Your task to perform on an android device: check android version Image 0: 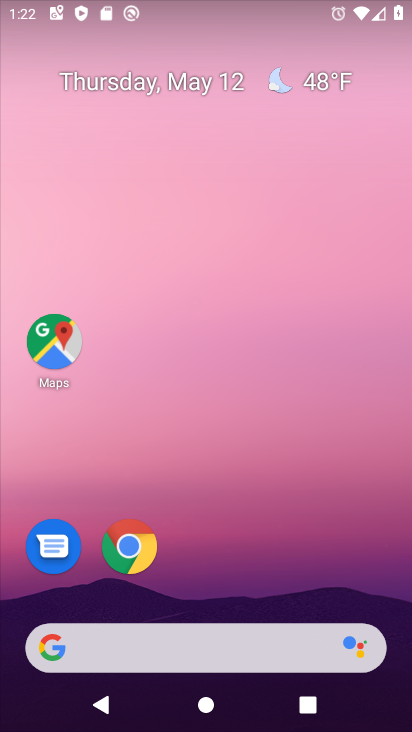
Step 0: drag from (225, 648) to (266, 245)
Your task to perform on an android device: check android version Image 1: 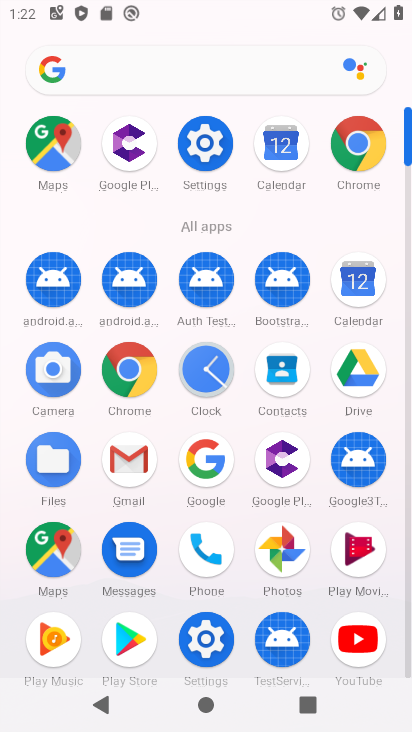
Step 1: click (206, 157)
Your task to perform on an android device: check android version Image 2: 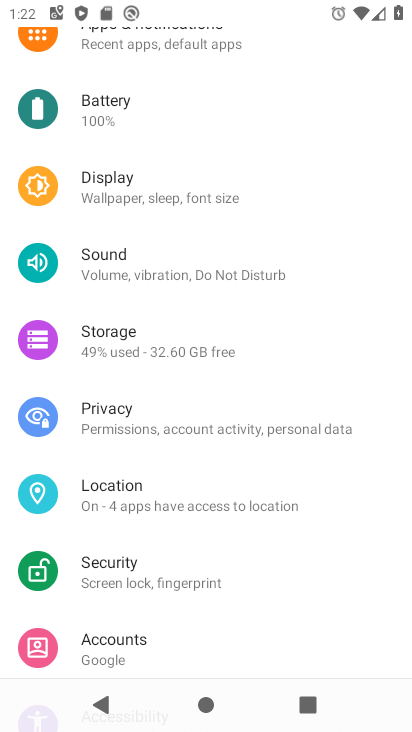
Step 2: drag from (243, 610) to (367, 161)
Your task to perform on an android device: check android version Image 3: 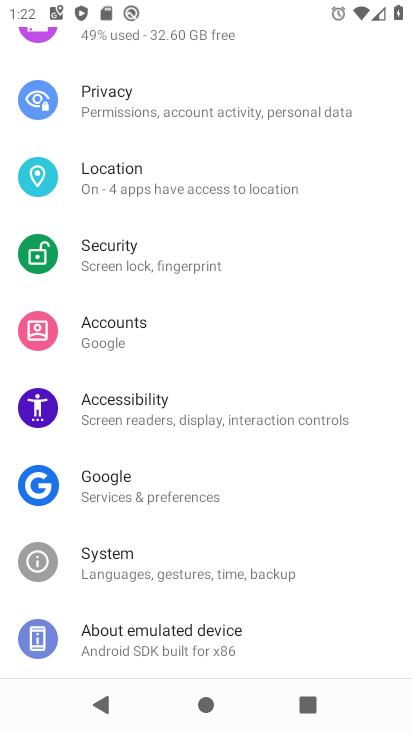
Step 3: click (173, 632)
Your task to perform on an android device: check android version Image 4: 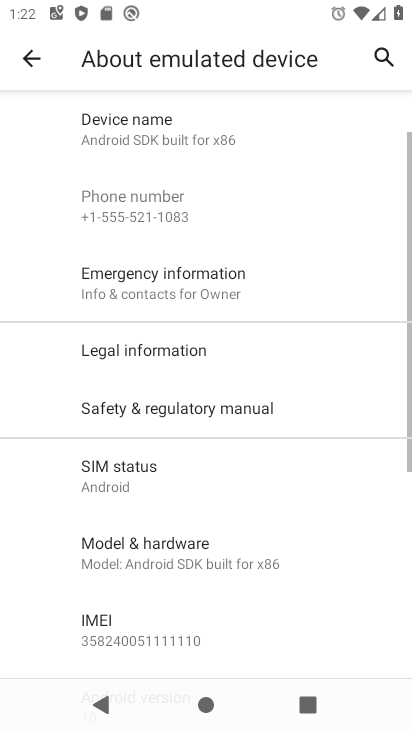
Step 4: drag from (237, 608) to (355, 144)
Your task to perform on an android device: check android version Image 5: 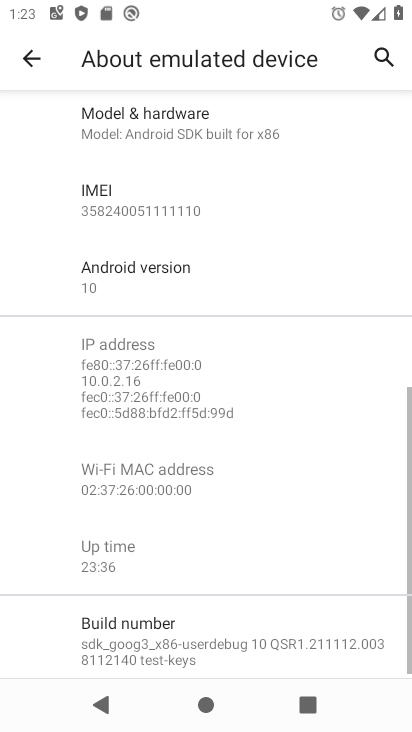
Step 5: click (160, 264)
Your task to perform on an android device: check android version Image 6: 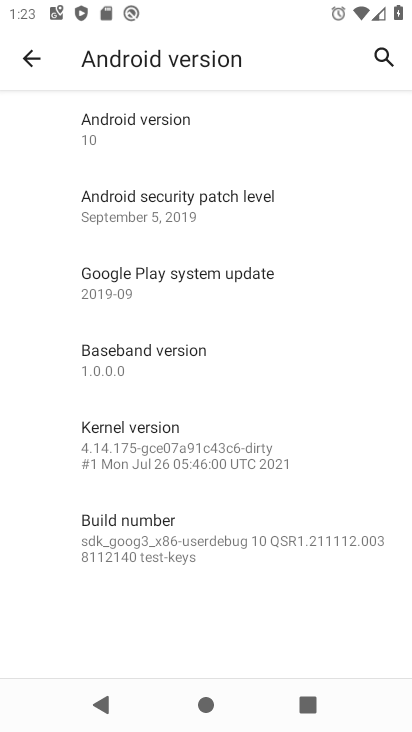
Step 6: task complete